Your task to perform on an android device: delete a single message in the gmail app Image 0: 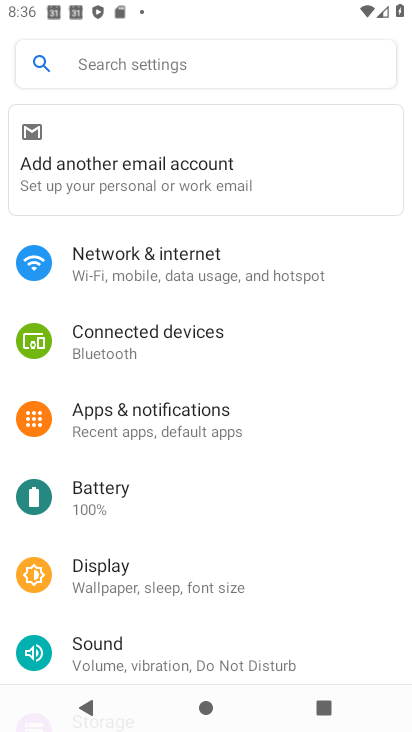
Step 0: press home button
Your task to perform on an android device: delete a single message in the gmail app Image 1: 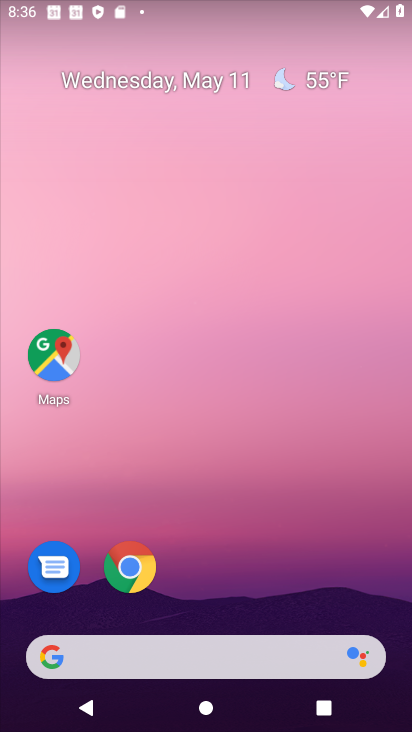
Step 1: drag from (228, 624) to (228, 62)
Your task to perform on an android device: delete a single message in the gmail app Image 2: 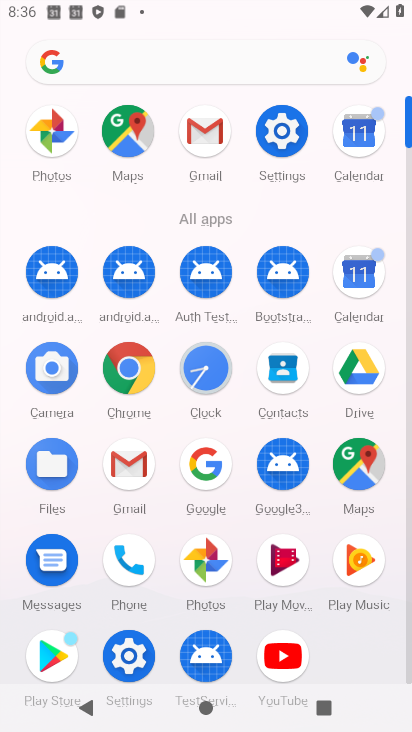
Step 2: click (137, 458)
Your task to perform on an android device: delete a single message in the gmail app Image 3: 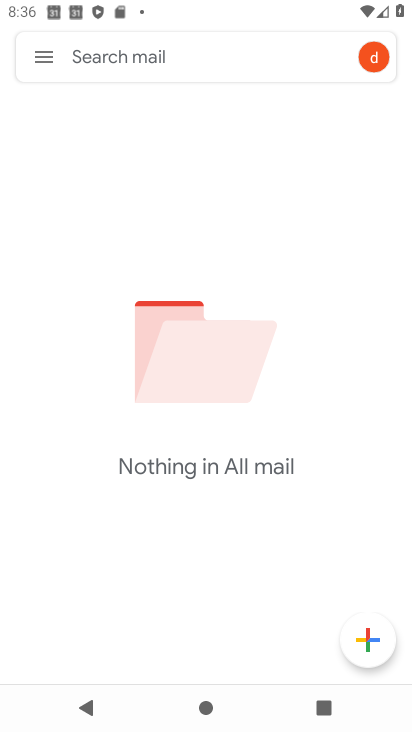
Step 3: task complete